Your task to perform on an android device: Open Youtube and go to "Your channel" Image 0: 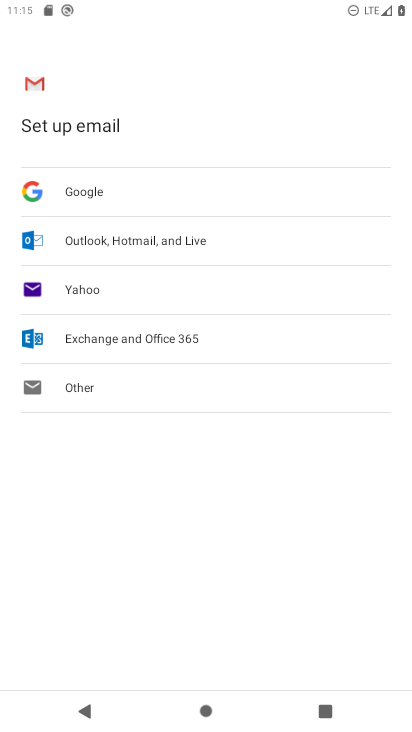
Step 0: press home button
Your task to perform on an android device: Open Youtube and go to "Your channel" Image 1: 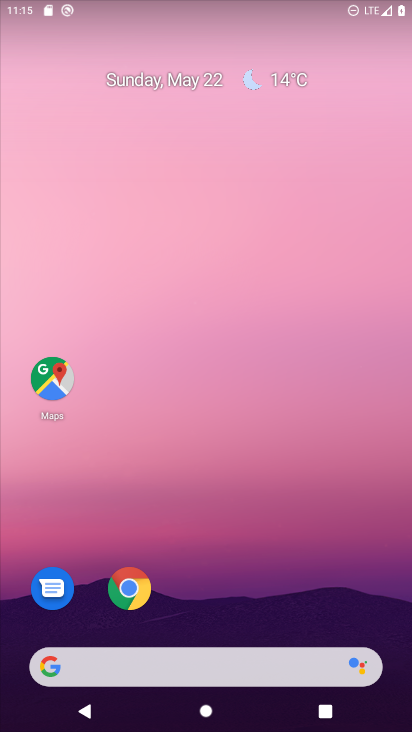
Step 1: drag from (232, 531) to (232, 130)
Your task to perform on an android device: Open Youtube and go to "Your channel" Image 2: 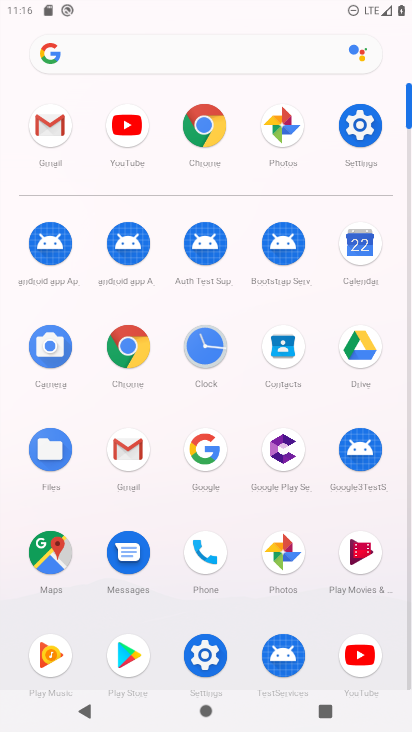
Step 2: click (352, 640)
Your task to perform on an android device: Open Youtube and go to "Your channel" Image 3: 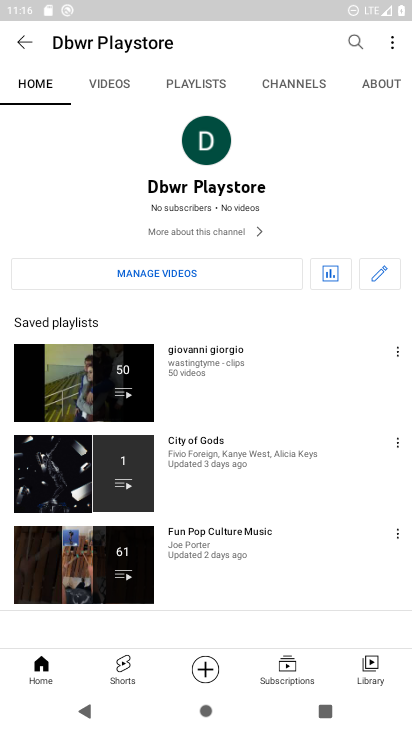
Step 3: task complete